Your task to perform on an android device: Open the calendar and show me this week's events Image 0: 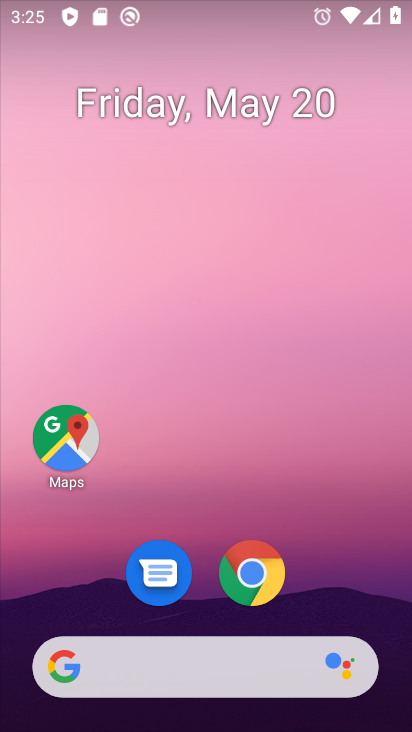
Step 0: drag from (211, 602) to (166, 89)
Your task to perform on an android device: Open the calendar and show me this week's events Image 1: 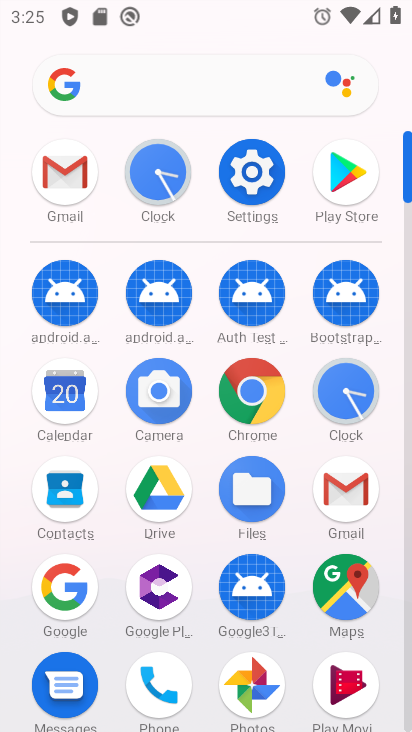
Step 1: click (61, 412)
Your task to perform on an android device: Open the calendar and show me this week's events Image 2: 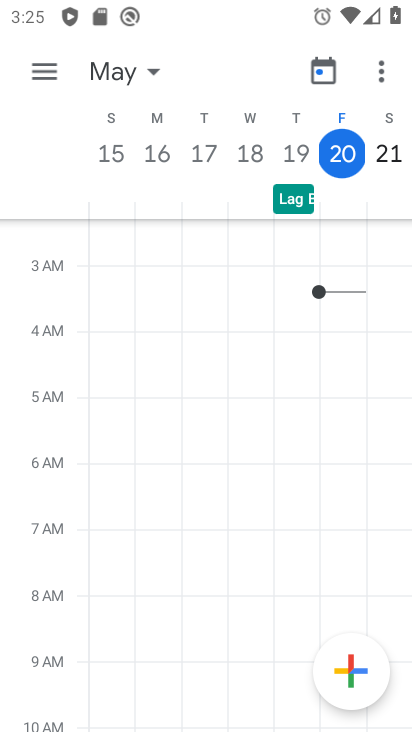
Step 2: task complete